Your task to perform on an android device: Open eBay Image 0: 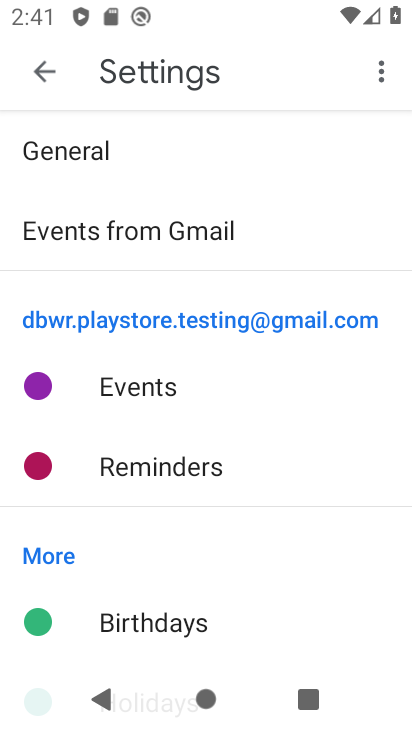
Step 0: press home button
Your task to perform on an android device: Open eBay Image 1: 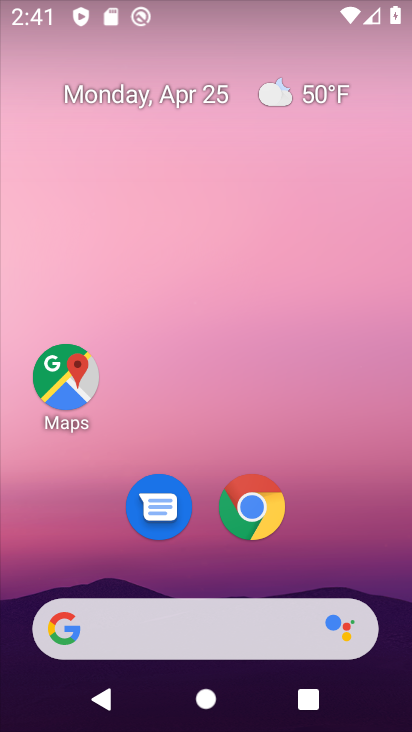
Step 1: click (256, 509)
Your task to perform on an android device: Open eBay Image 2: 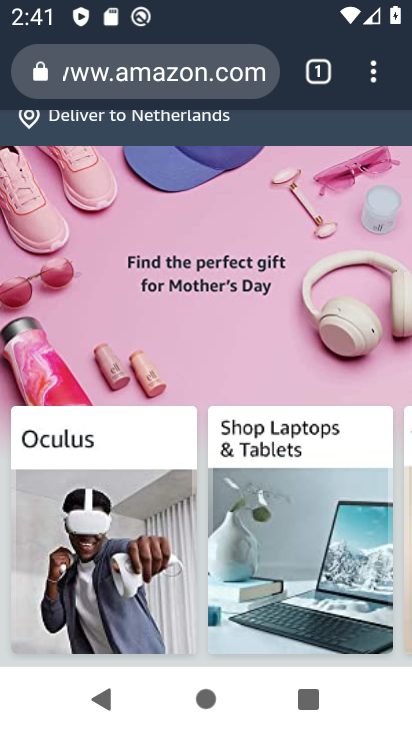
Step 2: click (147, 69)
Your task to perform on an android device: Open eBay Image 3: 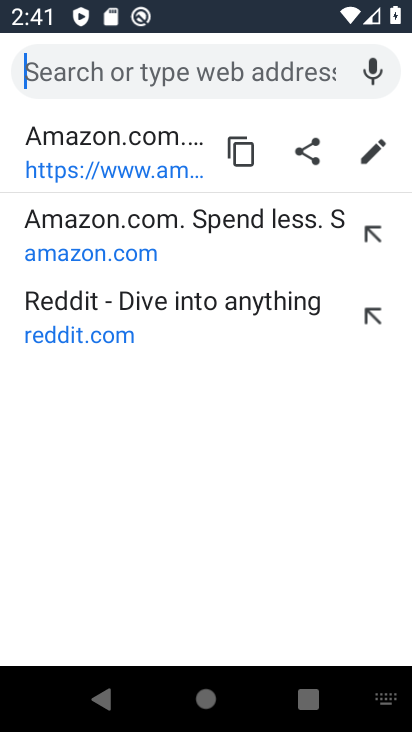
Step 3: type "ebay"
Your task to perform on an android device: Open eBay Image 4: 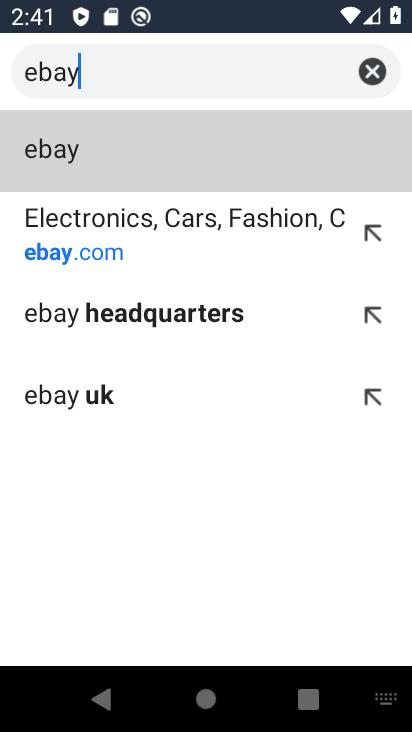
Step 4: click (89, 224)
Your task to perform on an android device: Open eBay Image 5: 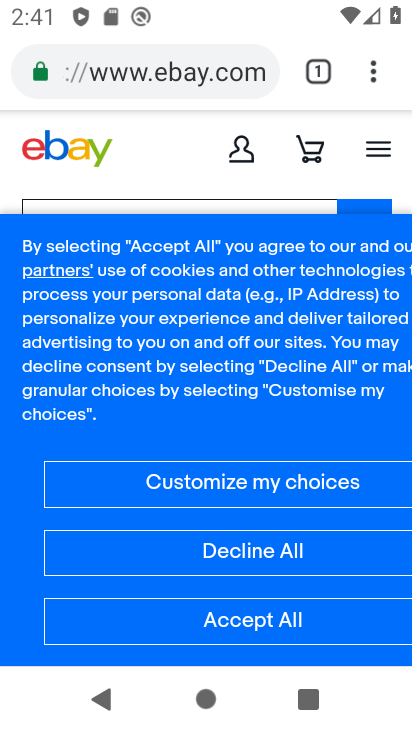
Step 5: task complete